Your task to perform on an android device: turn on the 12-hour format for clock Image 0: 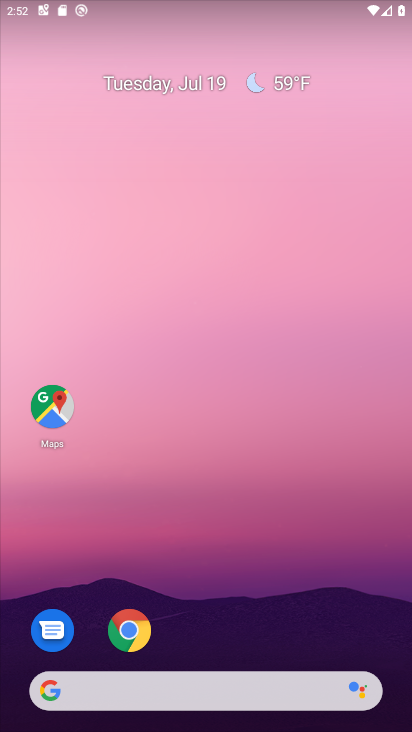
Step 0: drag from (246, 605) to (187, 219)
Your task to perform on an android device: turn on the 12-hour format for clock Image 1: 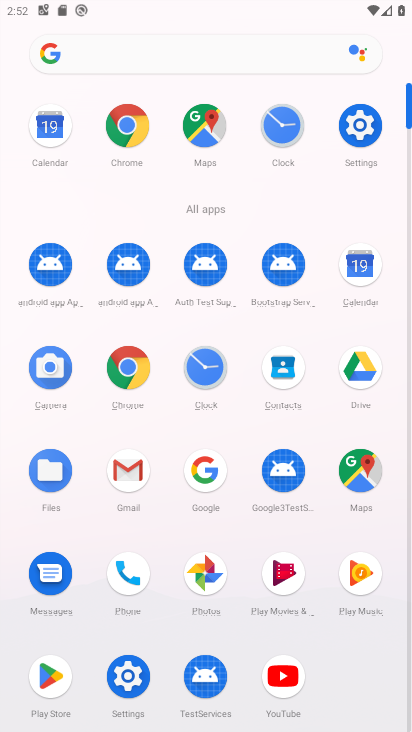
Step 1: click (278, 126)
Your task to perform on an android device: turn on the 12-hour format for clock Image 2: 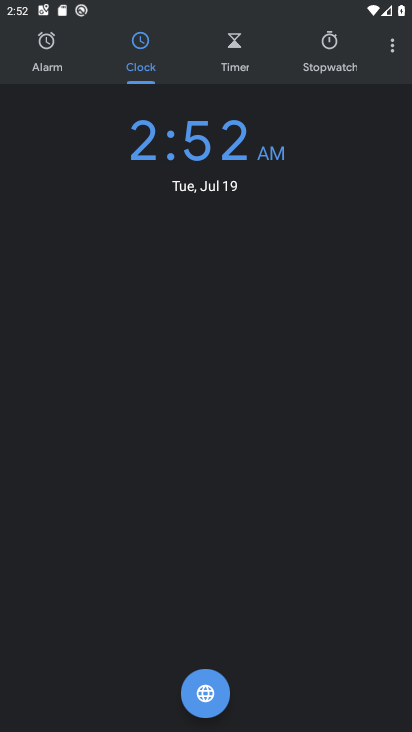
Step 2: click (393, 49)
Your task to perform on an android device: turn on the 12-hour format for clock Image 3: 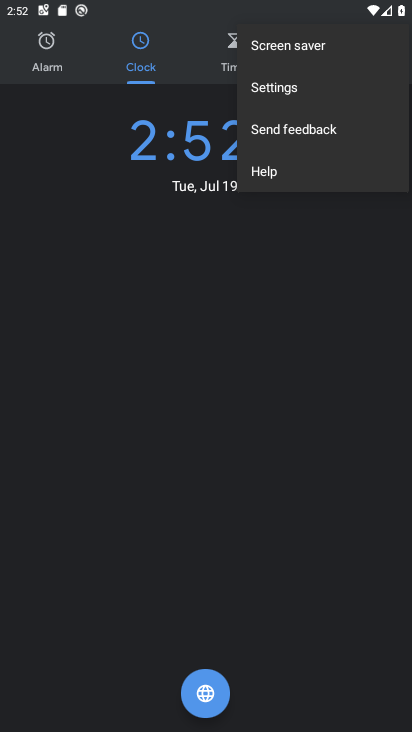
Step 3: click (299, 89)
Your task to perform on an android device: turn on the 12-hour format for clock Image 4: 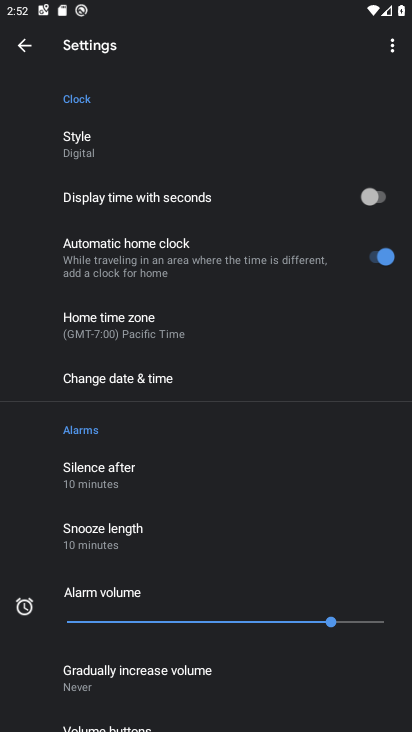
Step 4: click (123, 373)
Your task to perform on an android device: turn on the 12-hour format for clock Image 5: 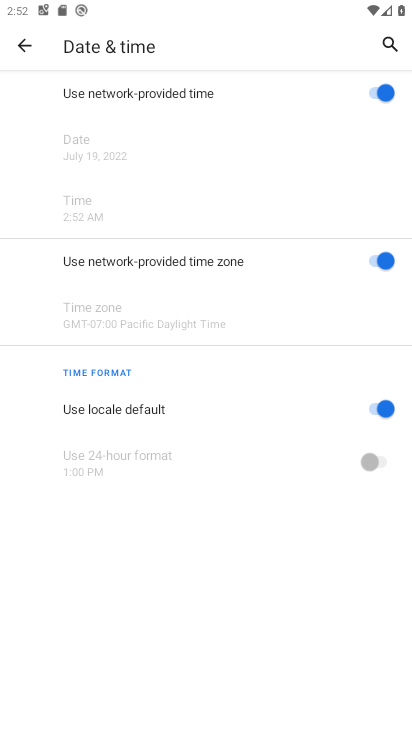
Step 5: task complete